Your task to perform on an android device: Go to Amazon Image 0: 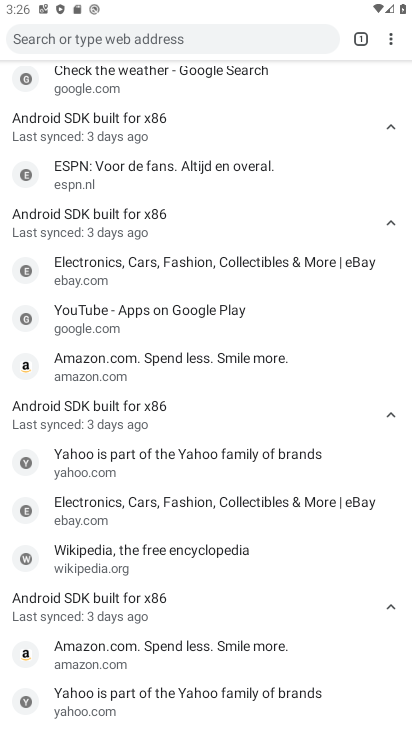
Step 0: press home button
Your task to perform on an android device: Go to Amazon Image 1: 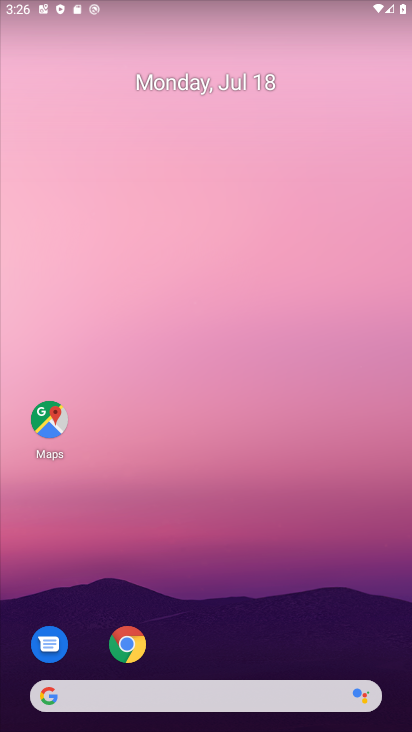
Step 1: click (129, 641)
Your task to perform on an android device: Go to Amazon Image 2: 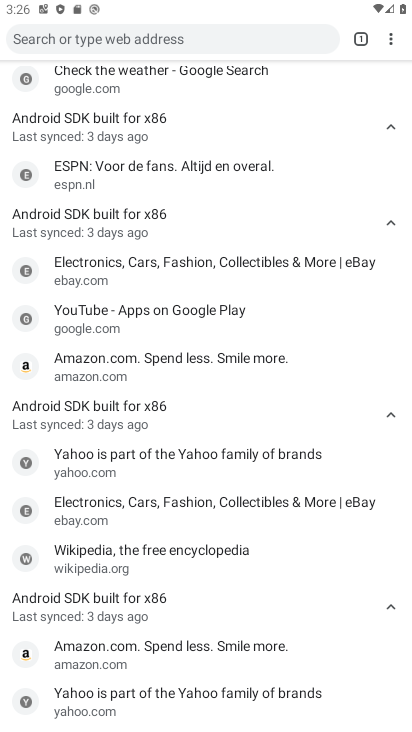
Step 2: click (136, 40)
Your task to perform on an android device: Go to Amazon Image 3: 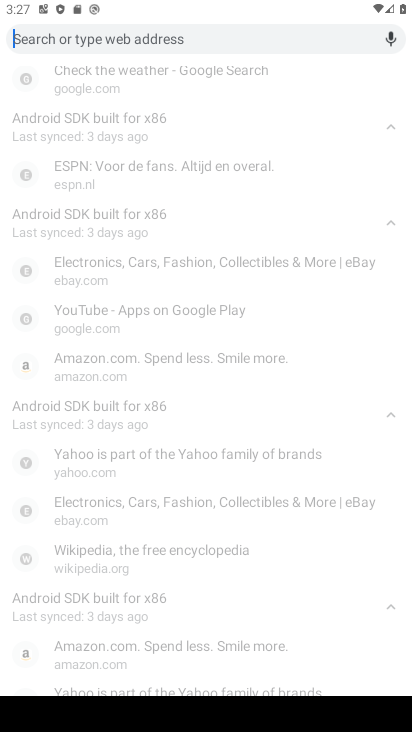
Step 3: type "Amazon"
Your task to perform on an android device: Go to Amazon Image 4: 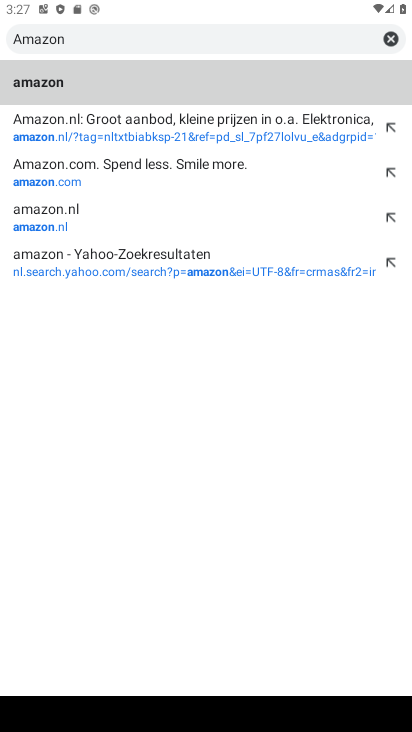
Step 4: click (39, 75)
Your task to perform on an android device: Go to Amazon Image 5: 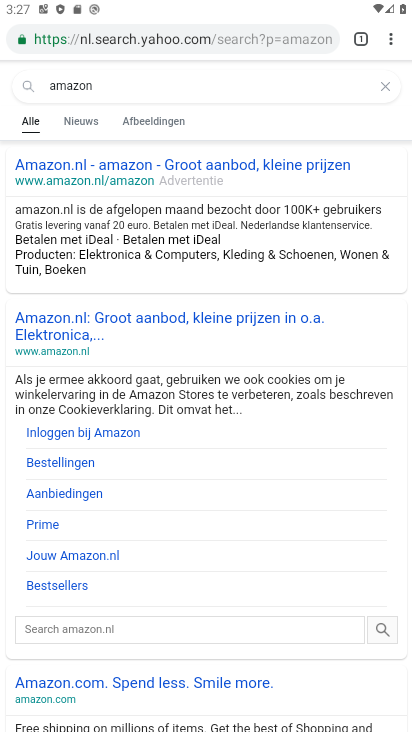
Step 5: click (69, 171)
Your task to perform on an android device: Go to Amazon Image 6: 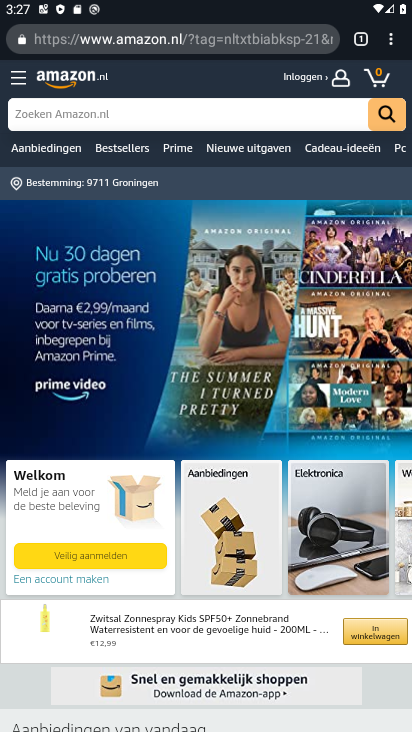
Step 6: task complete